Your task to perform on an android device: change the upload size in google photos Image 0: 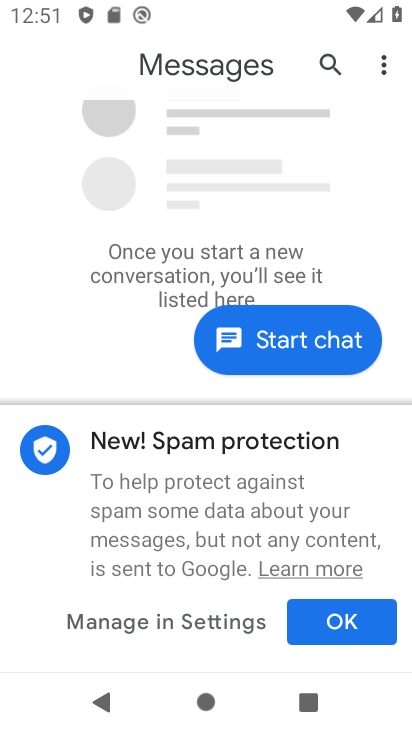
Step 0: press home button
Your task to perform on an android device: change the upload size in google photos Image 1: 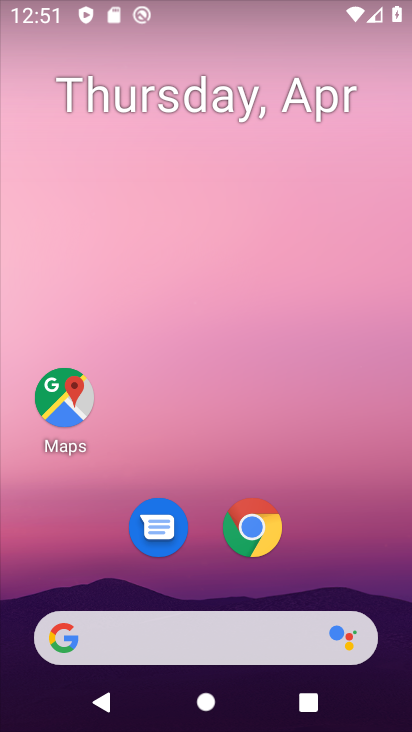
Step 1: drag from (382, 598) to (314, 218)
Your task to perform on an android device: change the upload size in google photos Image 2: 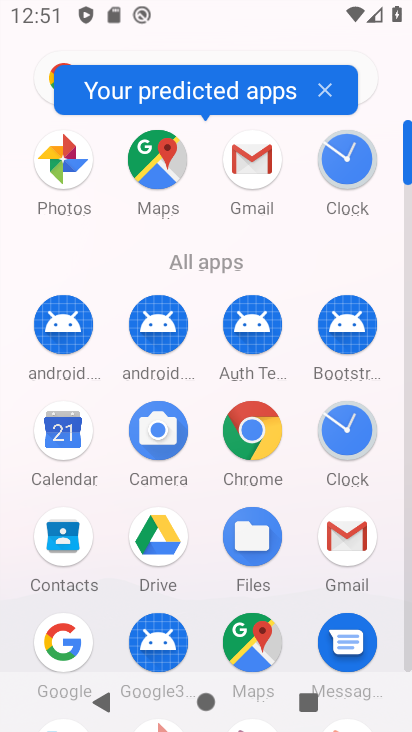
Step 2: click (408, 654)
Your task to perform on an android device: change the upload size in google photos Image 3: 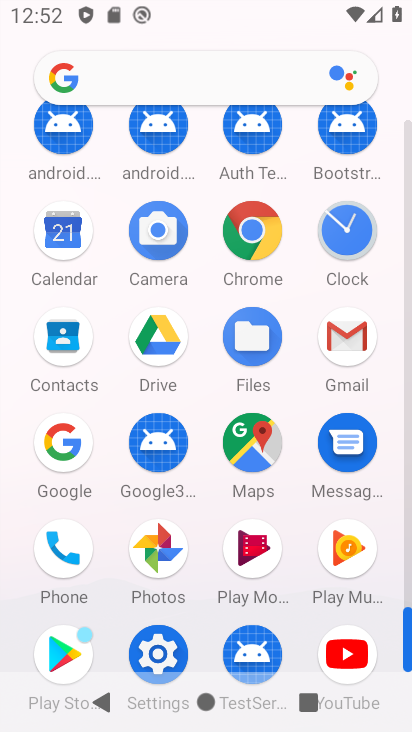
Step 3: click (155, 539)
Your task to perform on an android device: change the upload size in google photos Image 4: 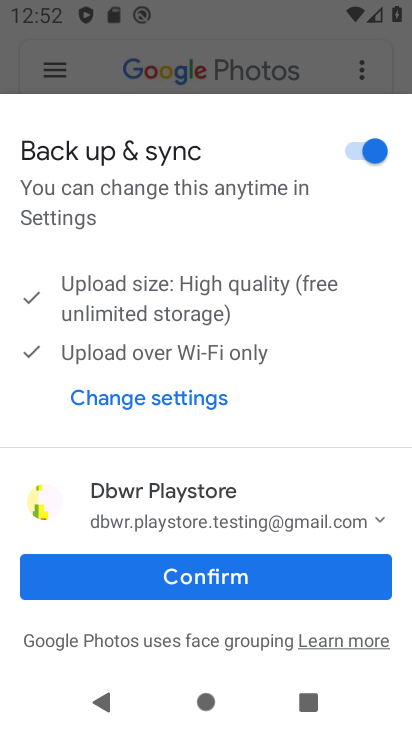
Step 4: click (196, 570)
Your task to perform on an android device: change the upload size in google photos Image 5: 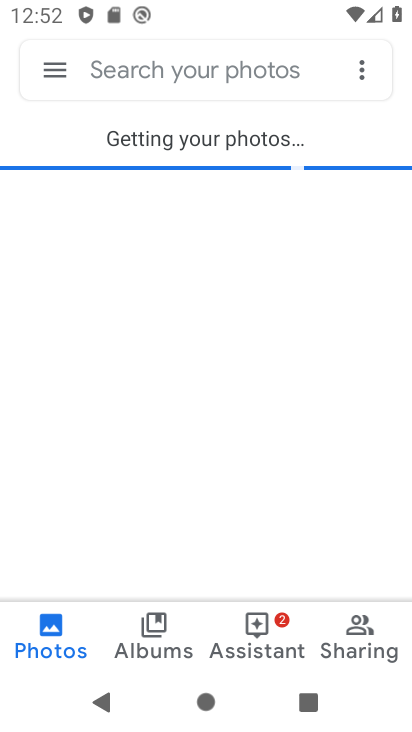
Step 5: click (59, 67)
Your task to perform on an android device: change the upload size in google photos Image 6: 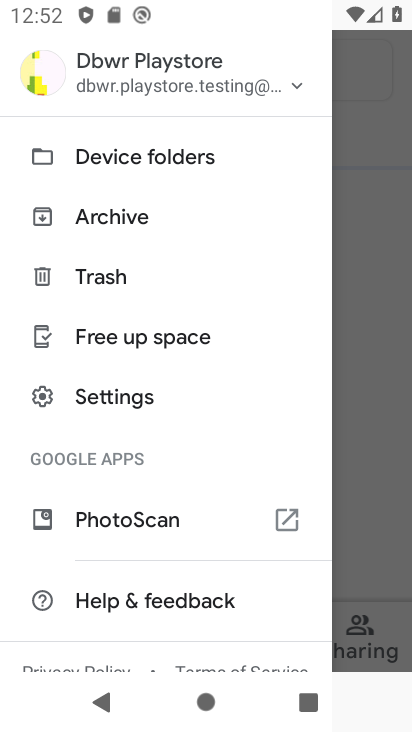
Step 6: click (122, 391)
Your task to perform on an android device: change the upload size in google photos Image 7: 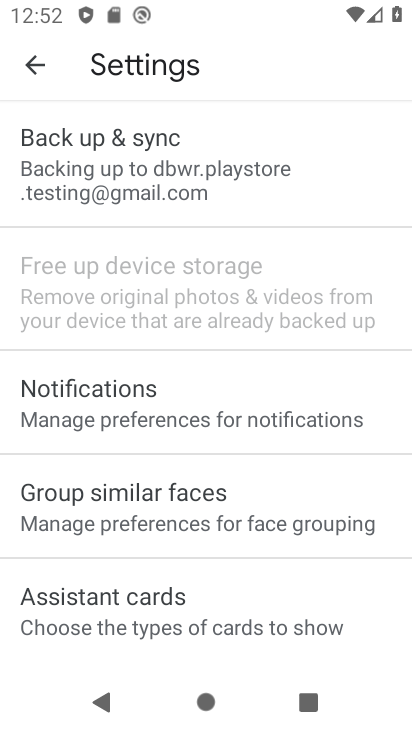
Step 7: click (131, 187)
Your task to perform on an android device: change the upload size in google photos Image 8: 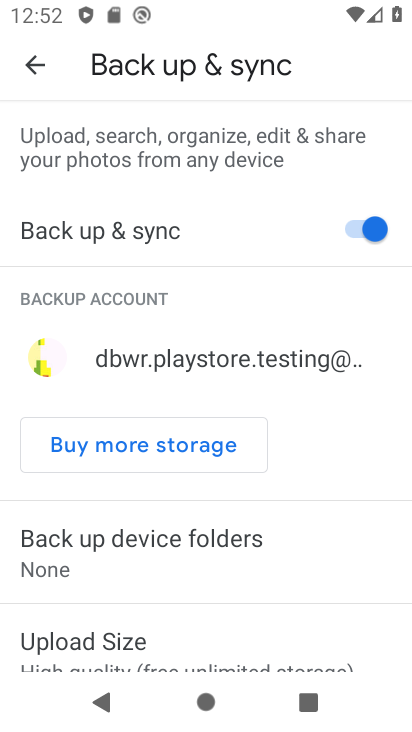
Step 8: drag from (203, 517) to (220, 9)
Your task to perform on an android device: change the upload size in google photos Image 9: 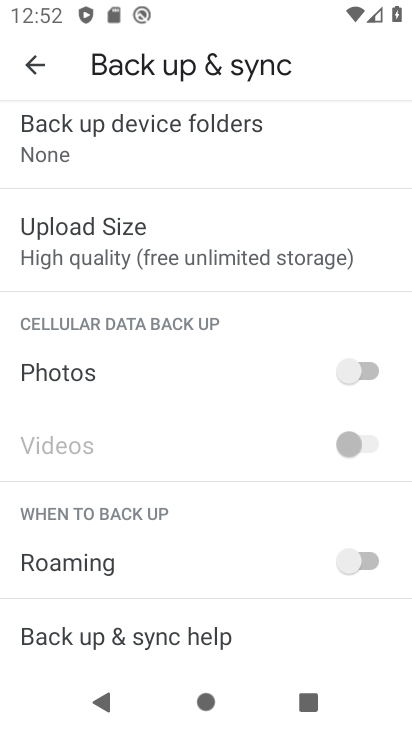
Step 9: click (100, 239)
Your task to perform on an android device: change the upload size in google photos Image 10: 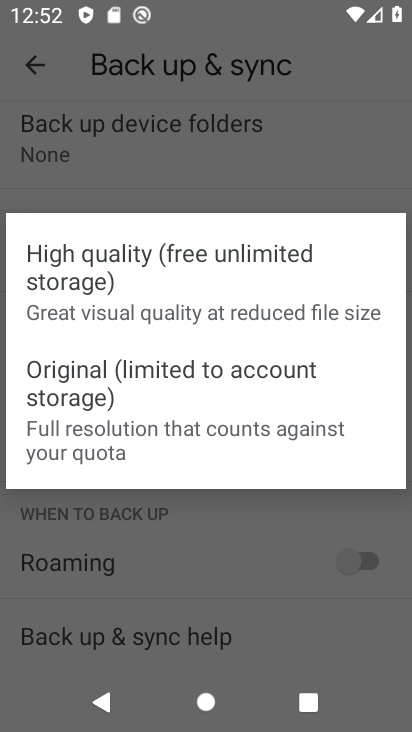
Step 10: click (89, 389)
Your task to perform on an android device: change the upload size in google photos Image 11: 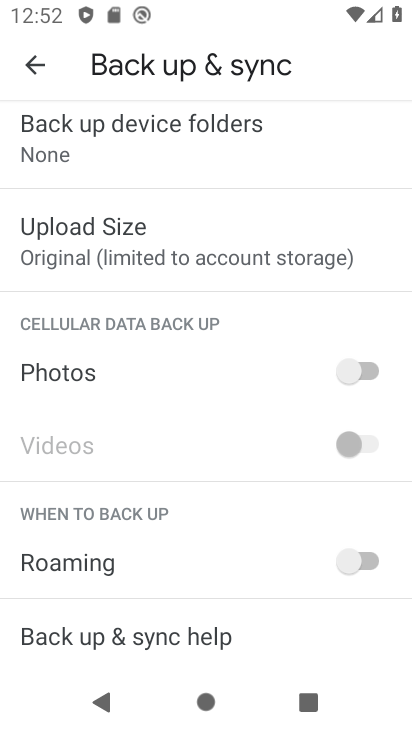
Step 11: task complete